Your task to perform on an android device: Open the stopwatch Image 0: 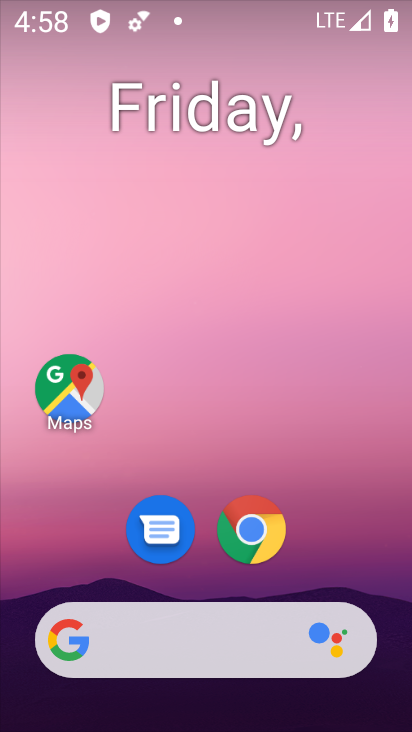
Step 0: drag from (370, 530) to (345, 75)
Your task to perform on an android device: Open the stopwatch Image 1: 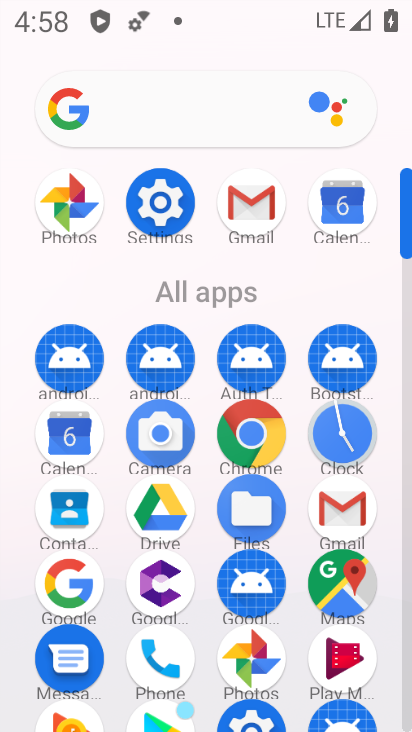
Step 1: click (326, 433)
Your task to perform on an android device: Open the stopwatch Image 2: 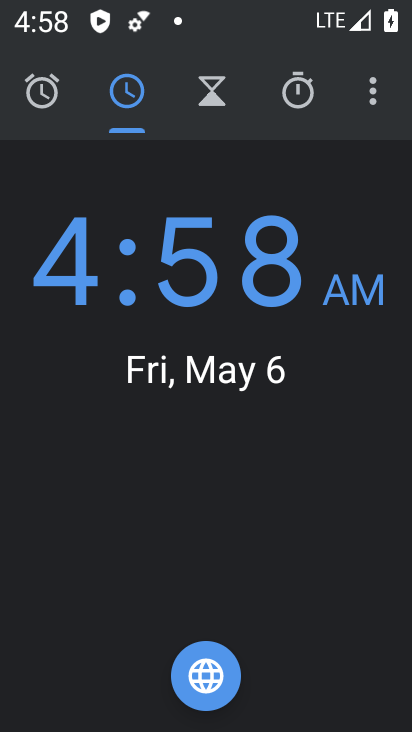
Step 2: click (300, 91)
Your task to perform on an android device: Open the stopwatch Image 3: 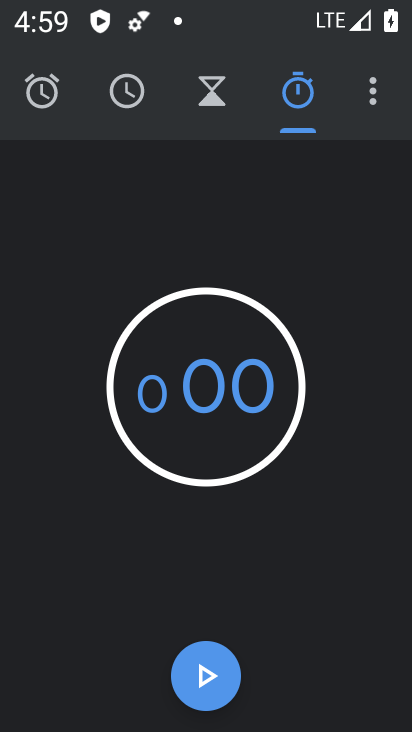
Step 3: task complete